Your task to perform on an android device: turn off location history Image 0: 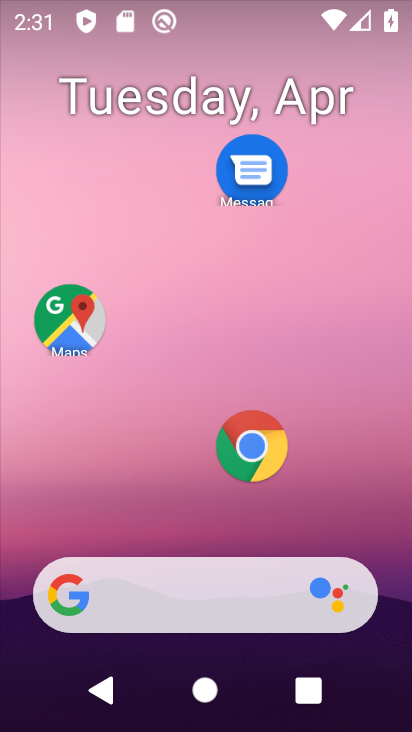
Step 0: drag from (152, 392) to (215, 27)
Your task to perform on an android device: turn off location history Image 1: 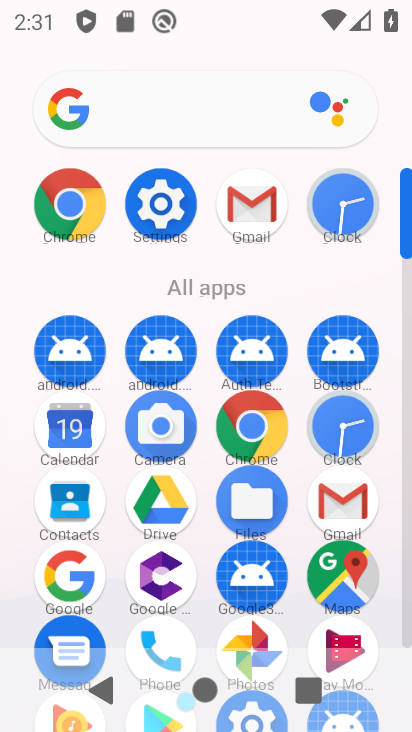
Step 1: click (152, 212)
Your task to perform on an android device: turn off location history Image 2: 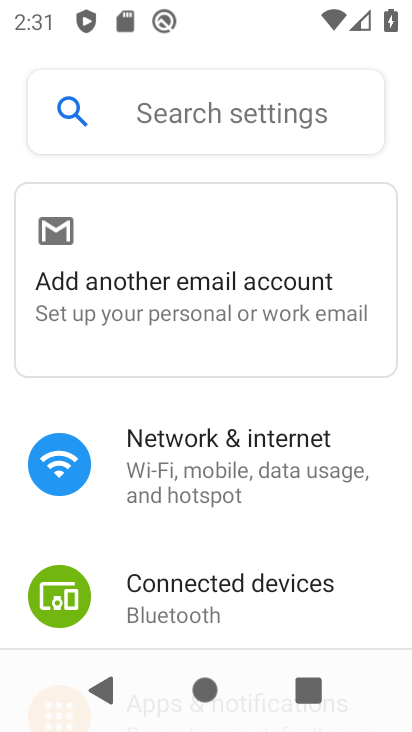
Step 2: drag from (226, 564) to (242, 269)
Your task to perform on an android device: turn off location history Image 3: 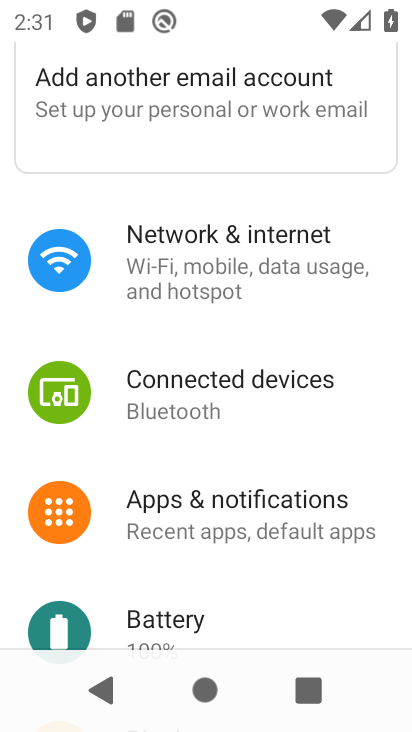
Step 3: drag from (217, 574) to (227, 319)
Your task to perform on an android device: turn off location history Image 4: 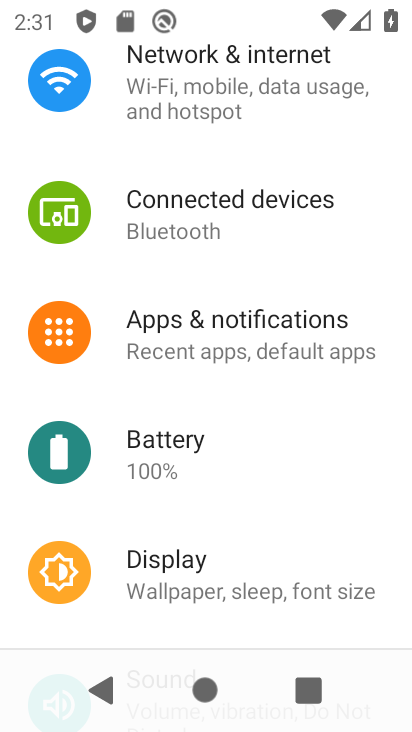
Step 4: drag from (207, 498) to (239, 249)
Your task to perform on an android device: turn off location history Image 5: 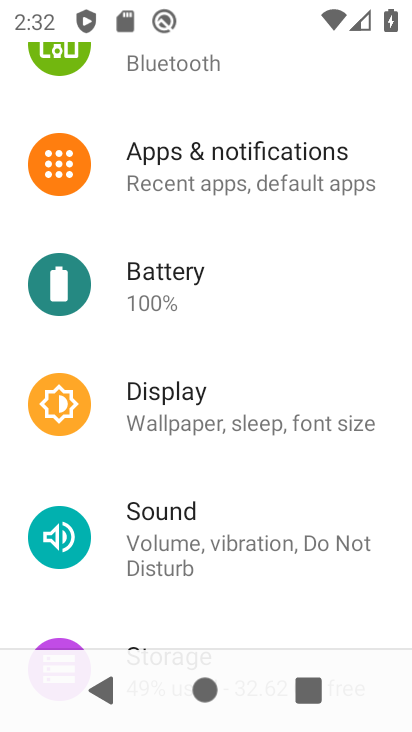
Step 5: drag from (211, 522) to (230, 228)
Your task to perform on an android device: turn off location history Image 6: 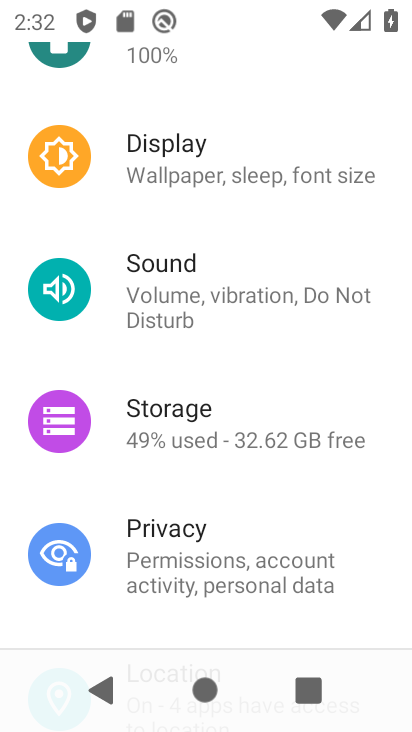
Step 6: drag from (213, 508) to (219, 242)
Your task to perform on an android device: turn off location history Image 7: 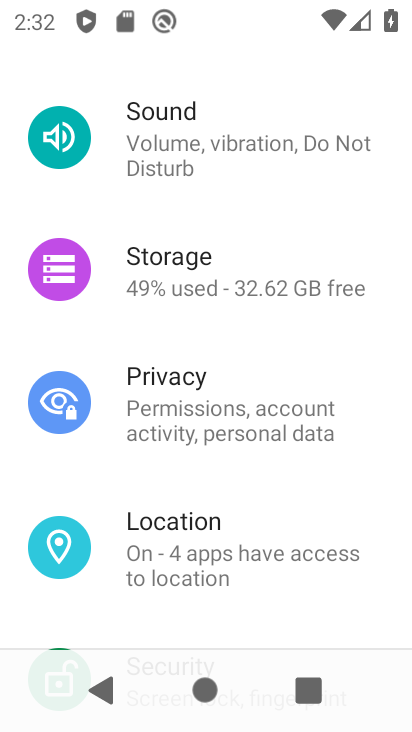
Step 7: click (196, 557)
Your task to perform on an android device: turn off location history Image 8: 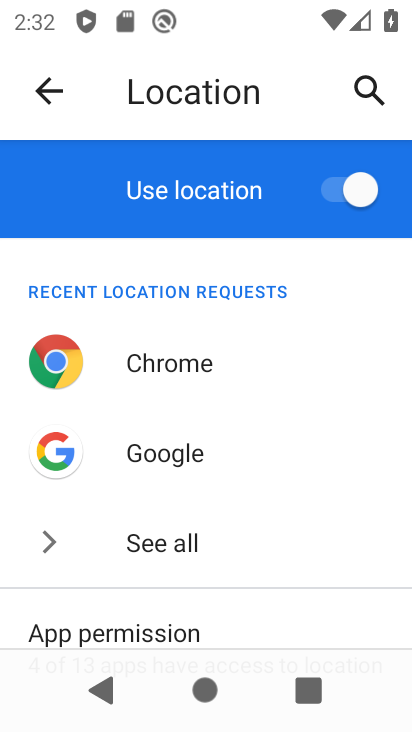
Step 8: drag from (196, 523) to (247, 195)
Your task to perform on an android device: turn off location history Image 9: 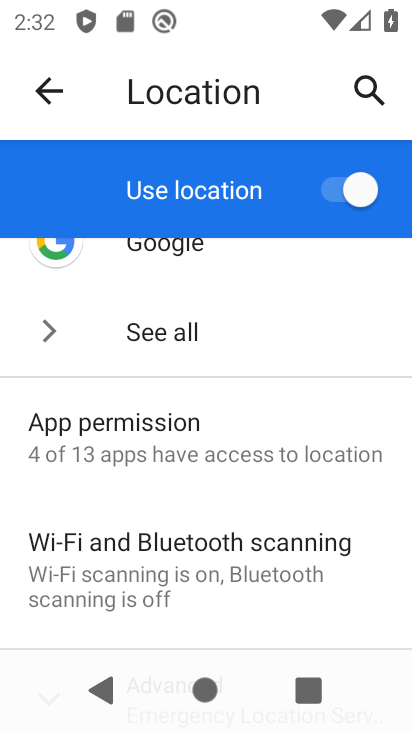
Step 9: drag from (200, 591) to (249, 221)
Your task to perform on an android device: turn off location history Image 10: 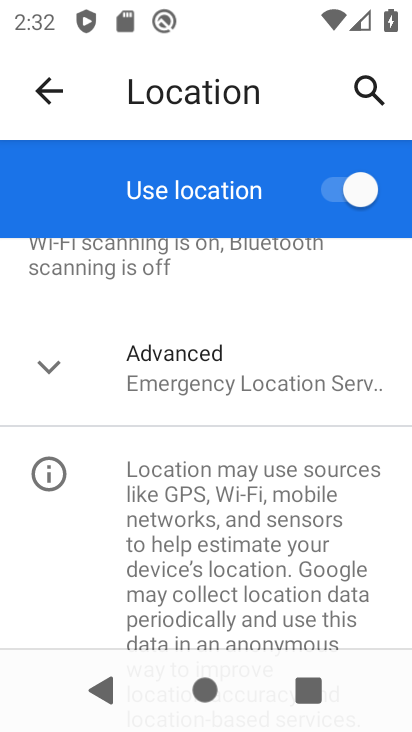
Step 10: click (220, 386)
Your task to perform on an android device: turn off location history Image 11: 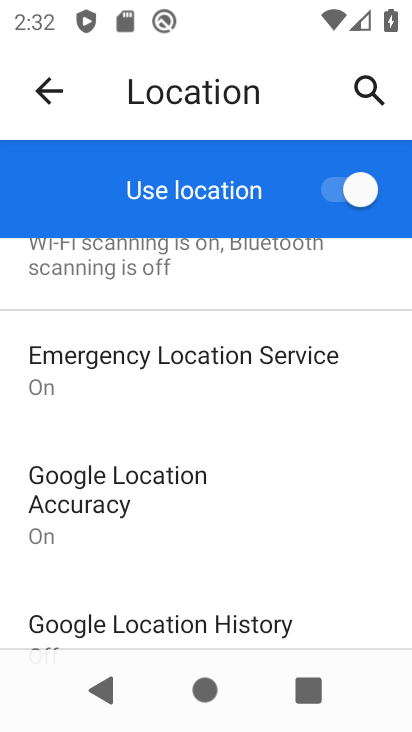
Step 11: drag from (220, 574) to (249, 314)
Your task to perform on an android device: turn off location history Image 12: 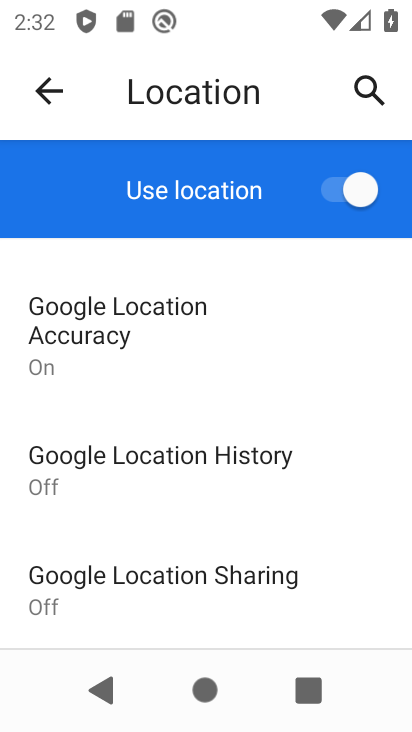
Step 12: click (151, 459)
Your task to perform on an android device: turn off location history Image 13: 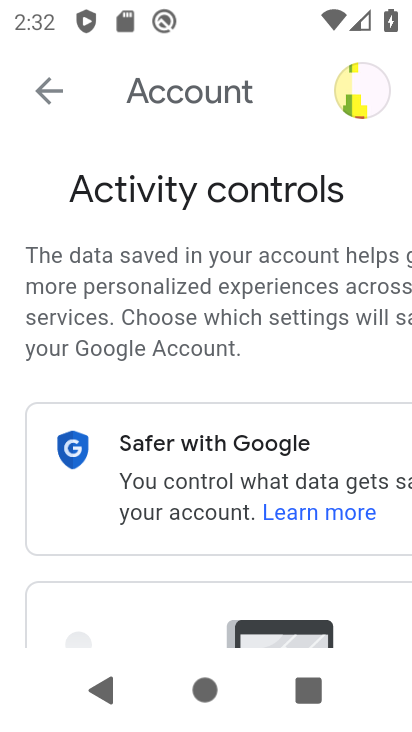
Step 13: drag from (295, 547) to (270, 161)
Your task to perform on an android device: turn off location history Image 14: 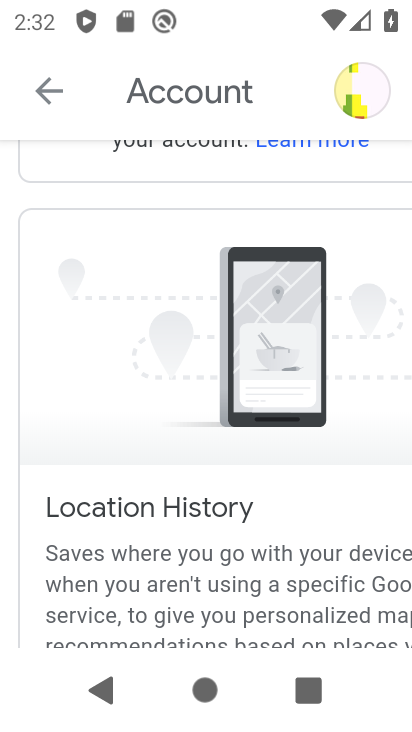
Step 14: drag from (293, 523) to (274, 178)
Your task to perform on an android device: turn off location history Image 15: 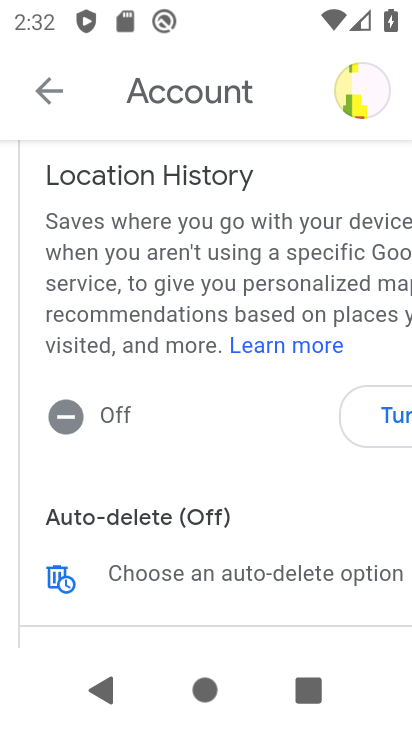
Step 15: drag from (245, 409) to (67, 418)
Your task to perform on an android device: turn off location history Image 16: 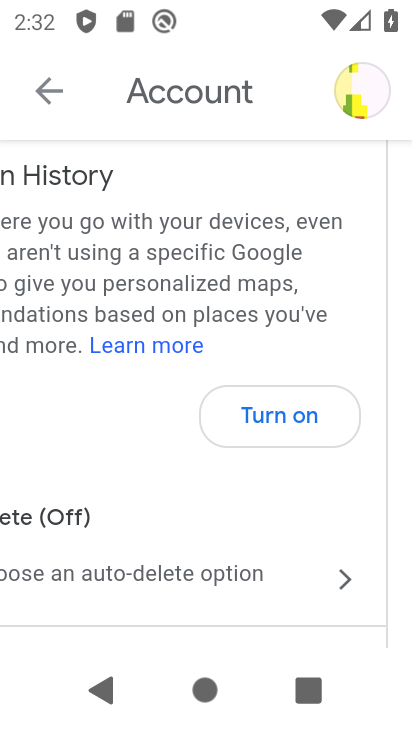
Step 16: click (265, 424)
Your task to perform on an android device: turn off location history Image 17: 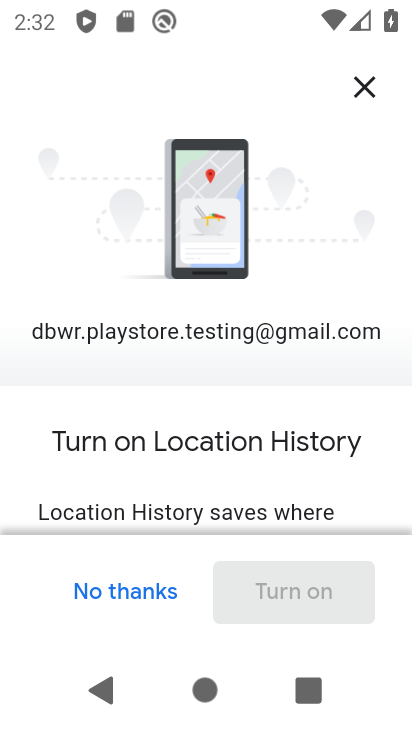
Step 17: click (257, 593)
Your task to perform on an android device: turn off location history Image 18: 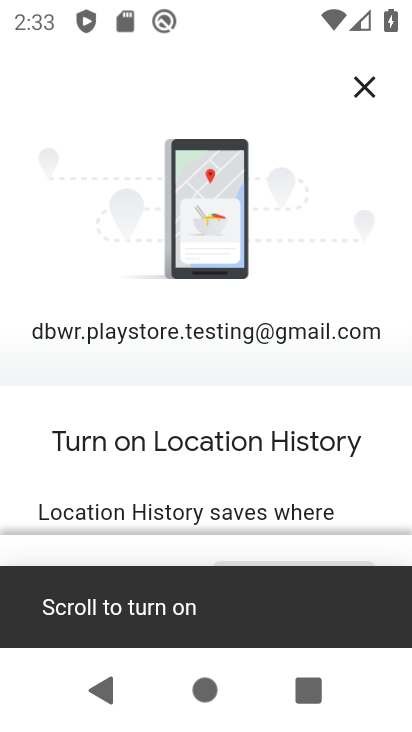
Step 18: drag from (297, 414) to (298, 167)
Your task to perform on an android device: turn off location history Image 19: 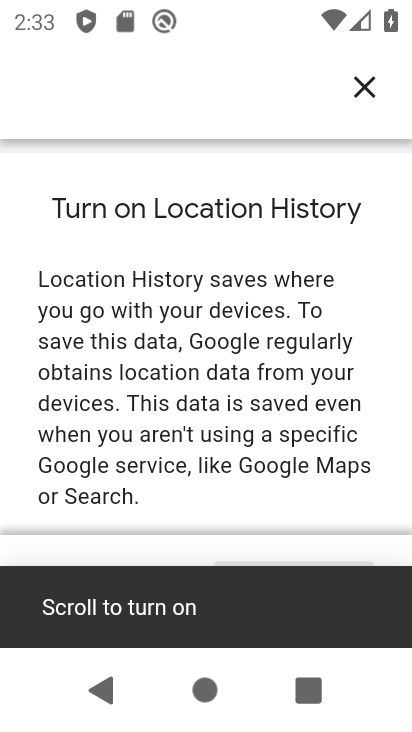
Step 19: drag from (260, 465) to (247, 151)
Your task to perform on an android device: turn off location history Image 20: 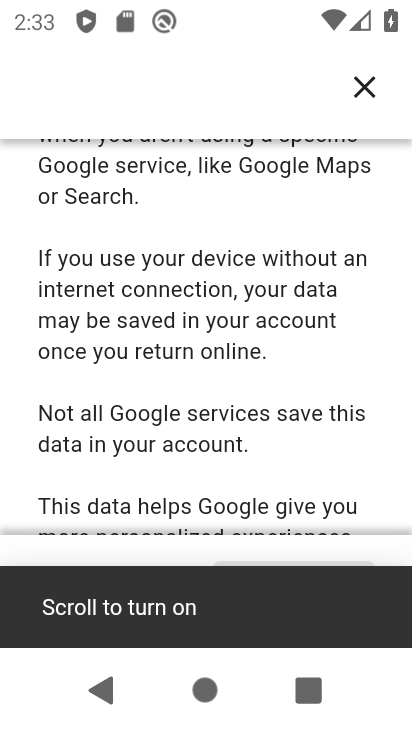
Step 20: drag from (284, 455) to (291, 125)
Your task to perform on an android device: turn off location history Image 21: 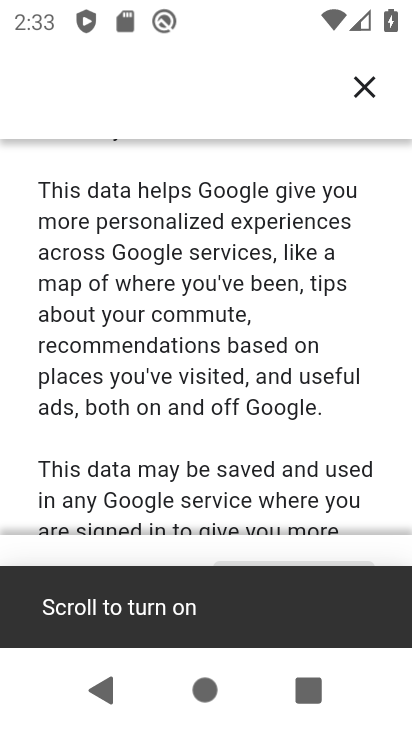
Step 21: drag from (263, 482) to (260, 130)
Your task to perform on an android device: turn off location history Image 22: 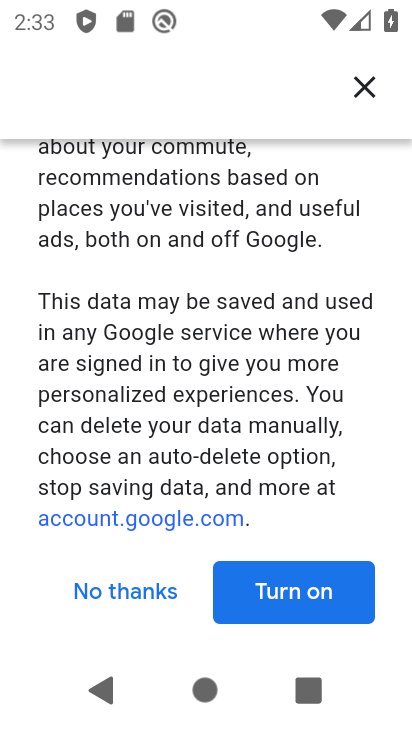
Step 22: click (280, 608)
Your task to perform on an android device: turn off location history Image 23: 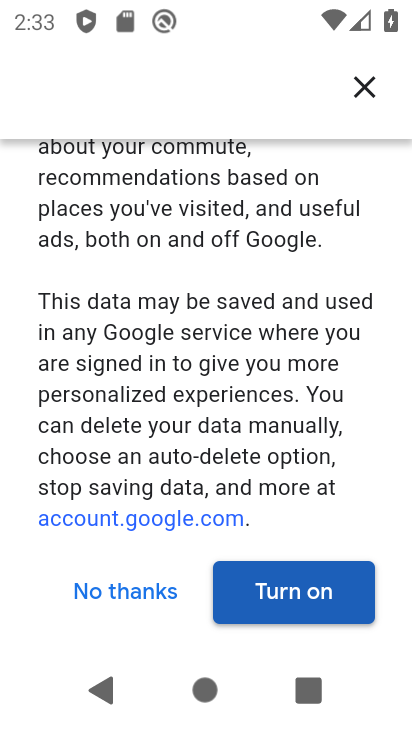
Step 23: task complete